Your task to perform on an android device: Open the calendar and show me this week's events? Image 0: 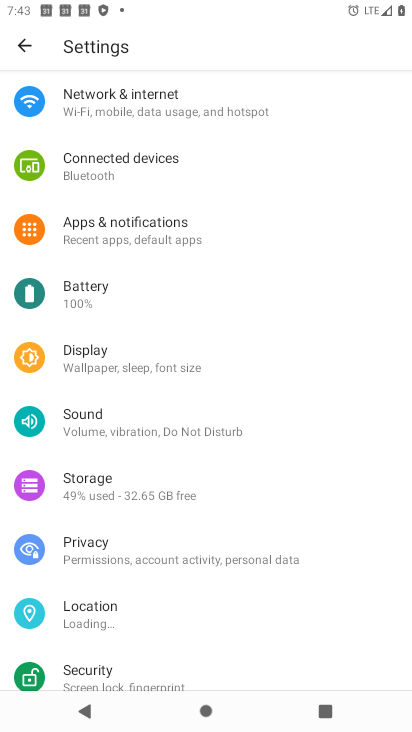
Step 0: press home button
Your task to perform on an android device: Open the calendar and show me this week's events? Image 1: 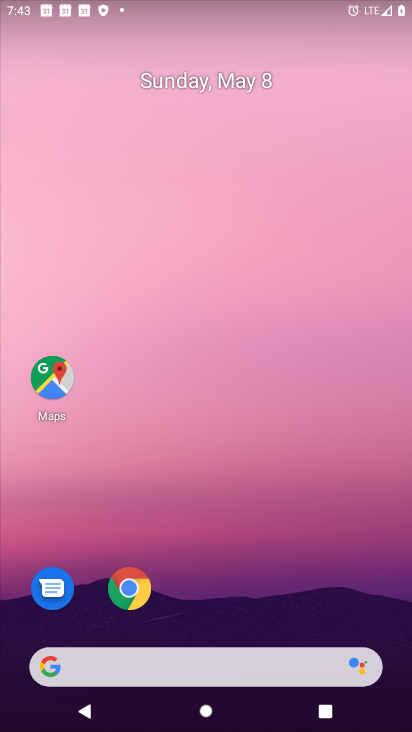
Step 1: drag from (205, 664) to (373, 59)
Your task to perform on an android device: Open the calendar and show me this week's events? Image 2: 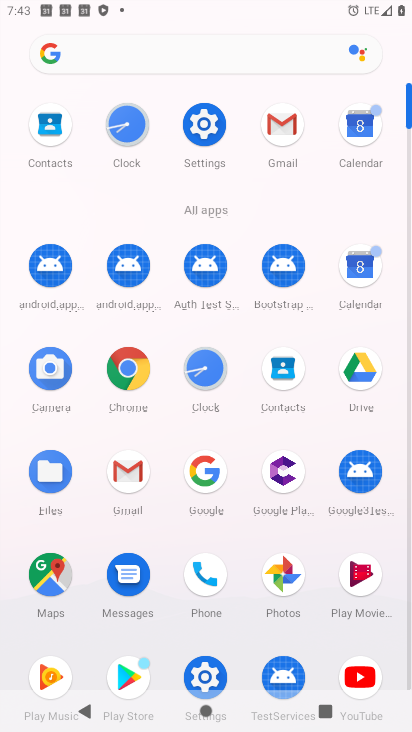
Step 2: click (366, 273)
Your task to perform on an android device: Open the calendar and show me this week's events? Image 3: 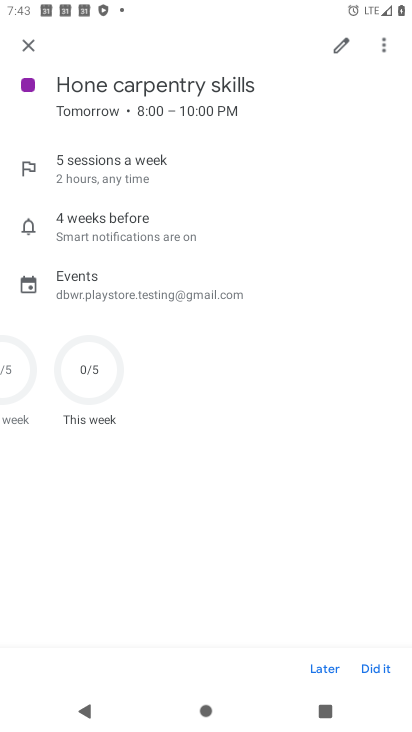
Step 3: click (24, 51)
Your task to perform on an android device: Open the calendar and show me this week's events? Image 4: 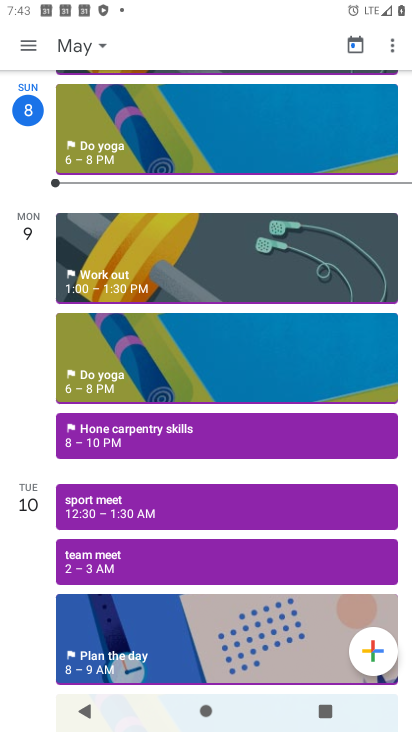
Step 4: click (208, 501)
Your task to perform on an android device: Open the calendar and show me this week's events? Image 5: 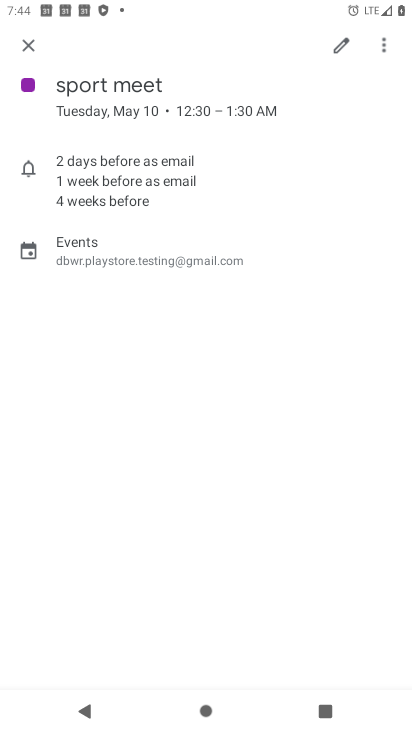
Step 5: task complete